Your task to perform on an android device: open chrome and create a bookmark for the current page Image 0: 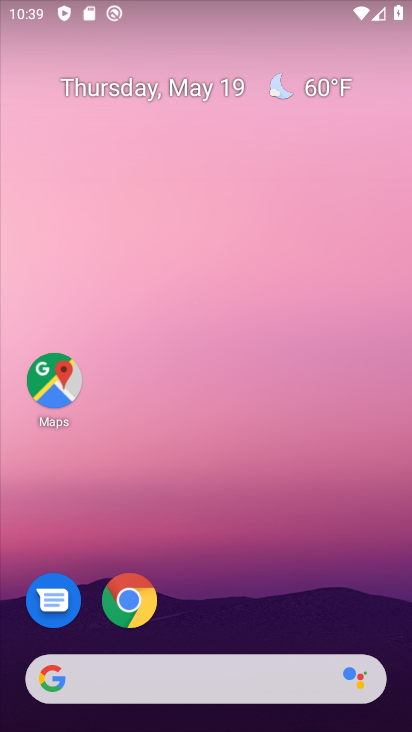
Step 0: drag from (317, 627) to (322, 395)
Your task to perform on an android device: open chrome and create a bookmark for the current page Image 1: 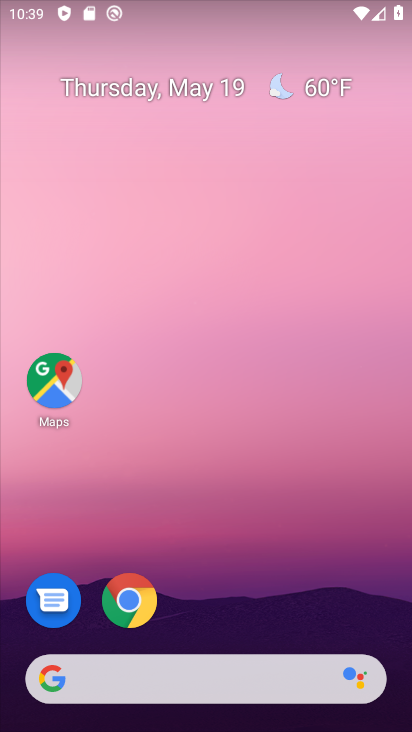
Step 1: drag from (380, 628) to (388, 207)
Your task to perform on an android device: open chrome and create a bookmark for the current page Image 2: 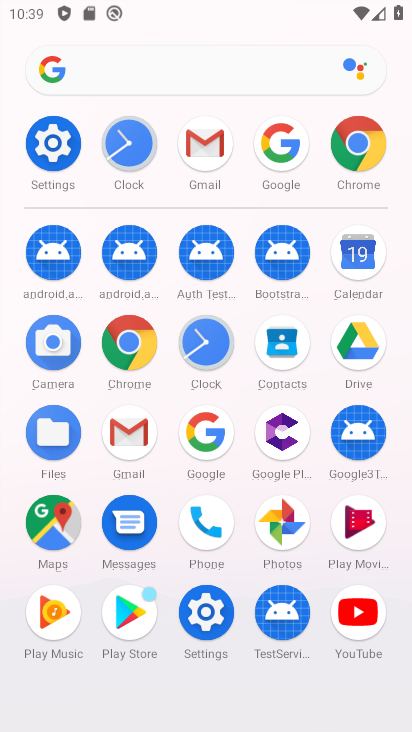
Step 2: click (123, 358)
Your task to perform on an android device: open chrome and create a bookmark for the current page Image 3: 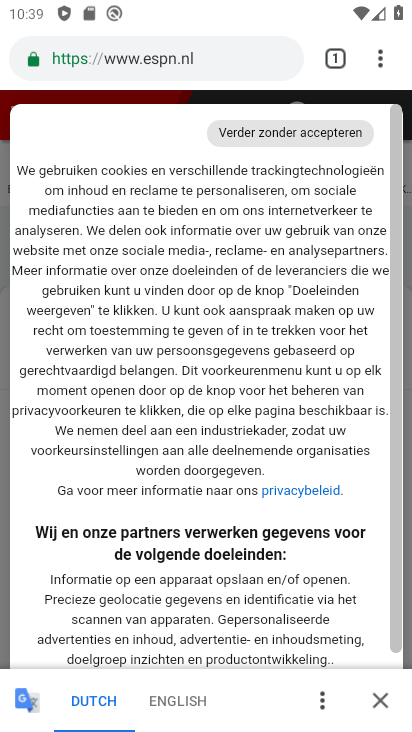
Step 3: click (376, 69)
Your task to perform on an android device: open chrome and create a bookmark for the current page Image 4: 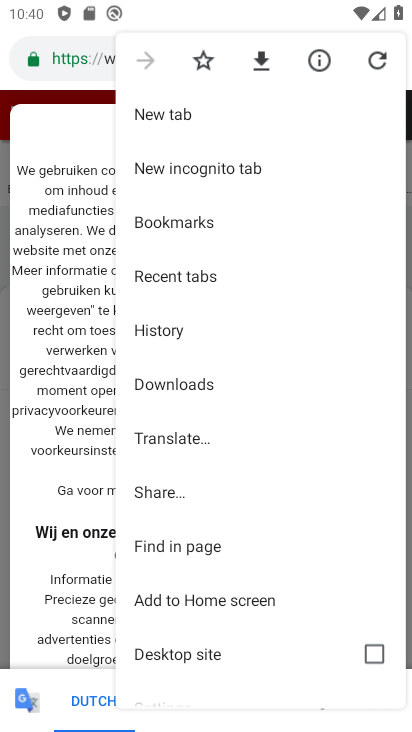
Step 4: click (213, 56)
Your task to perform on an android device: open chrome and create a bookmark for the current page Image 5: 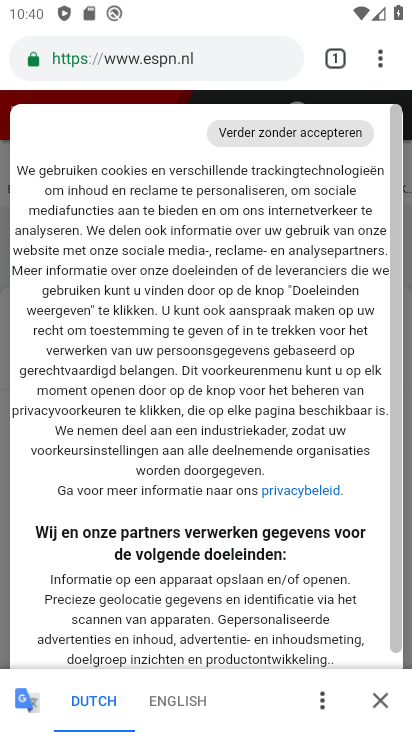
Step 5: task complete